Your task to perform on an android device: Go to location settings Image 0: 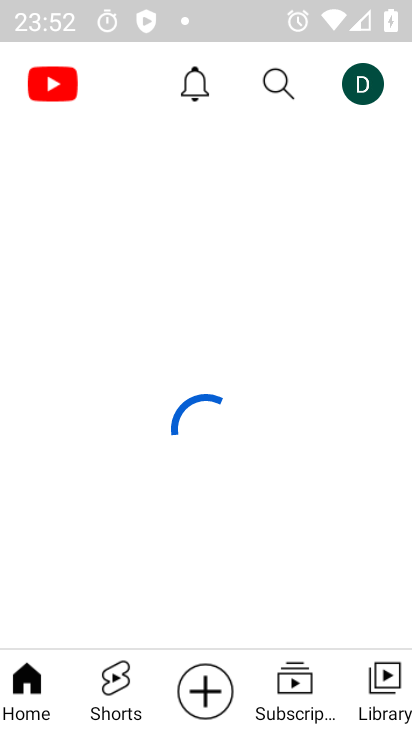
Step 0: drag from (247, 702) to (149, 27)
Your task to perform on an android device: Go to location settings Image 1: 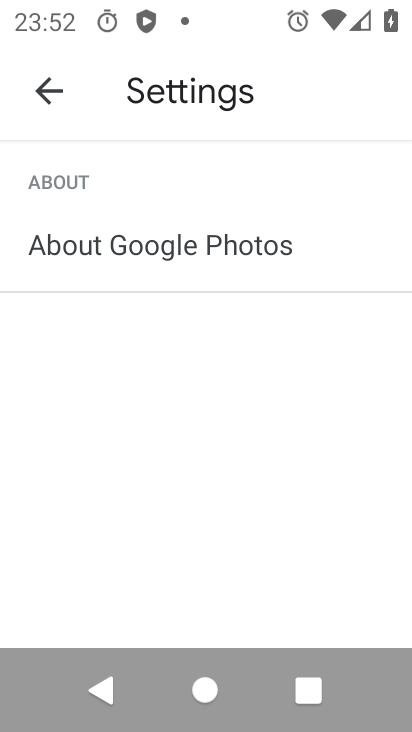
Step 1: click (46, 94)
Your task to perform on an android device: Go to location settings Image 2: 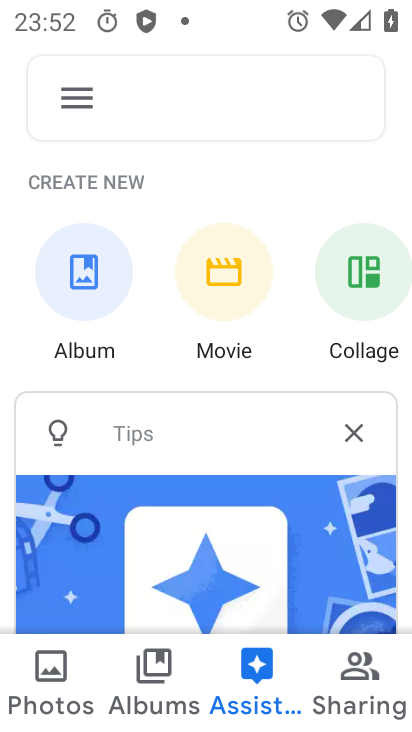
Step 2: press back button
Your task to perform on an android device: Go to location settings Image 3: 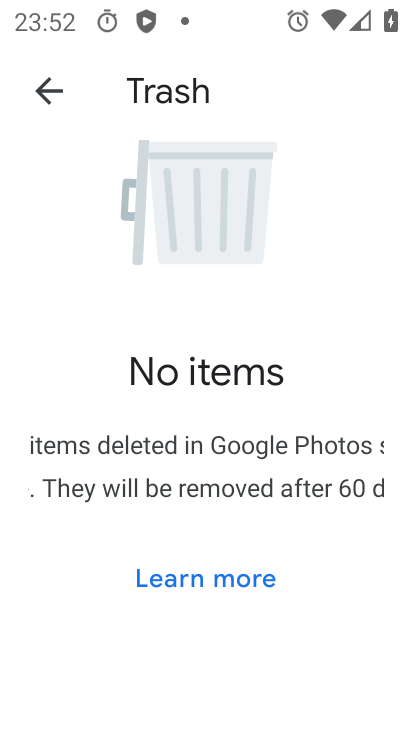
Step 3: press home button
Your task to perform on an android device: Go to location settings Image 4: 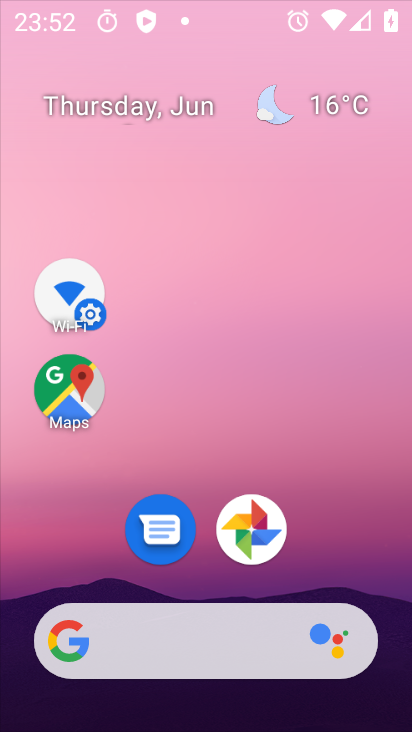
Step 4: click (59, 94)
Your task to perform on an android device: Go to location settings Image 5: 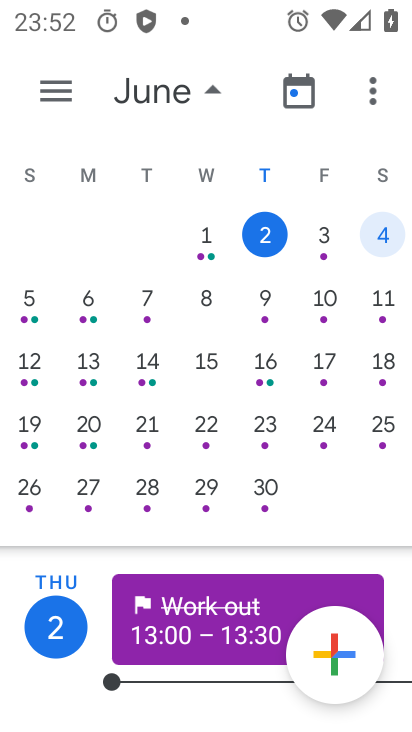
Step 5: press back button
Your task to perform on an android device: Go to location settings Image 6: 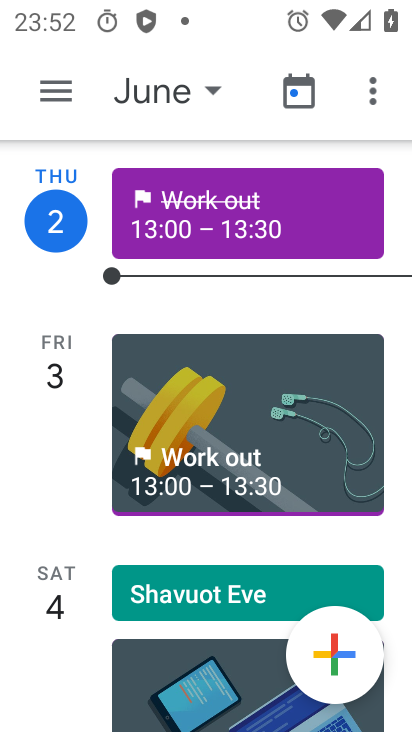
Step 6: press home button
Your task to perform on an android device: Go to location settings Image 7: 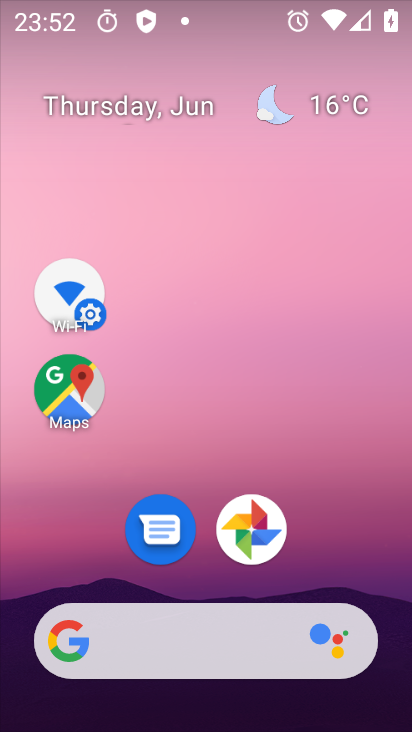
Step 7: drag from (275, 697) to (140, 105)
Your task to perform on an android device: Go to location settings Image 8: 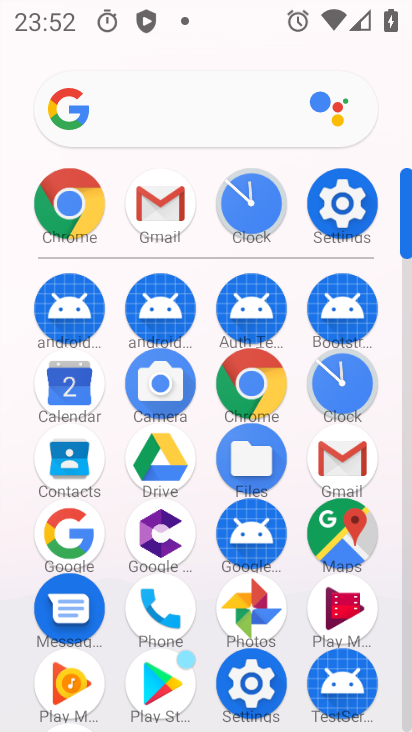
Step 8: click (340, 204)
Your task to perform on an android device: Go to location settings Image 9: 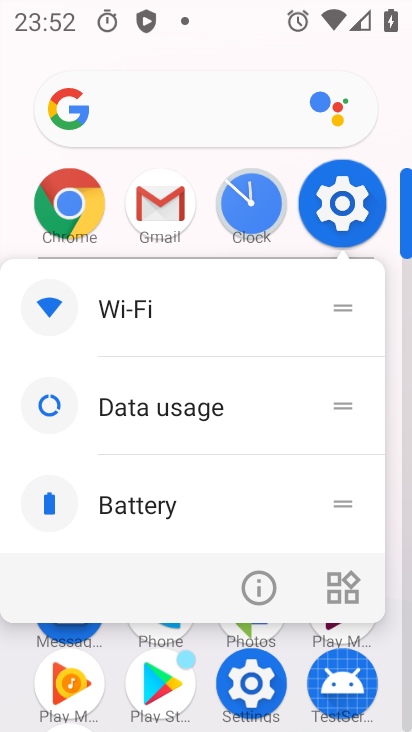
Step 9: click (339, 206)
Your task to perform on an android device: Go to location settings Image 10: 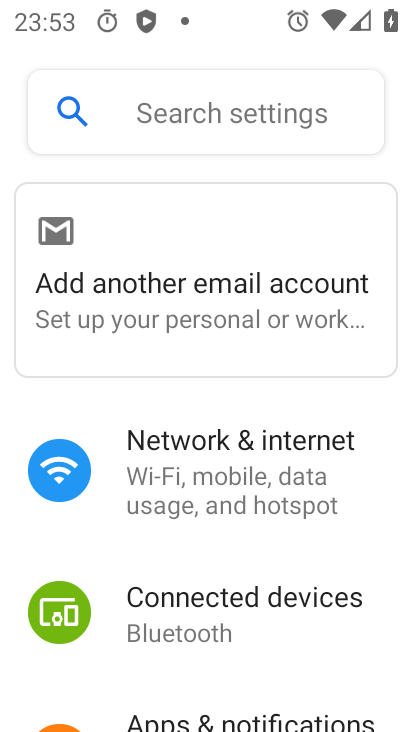
Step 10: drag from (216, 485) to (190, 137)
Your task to perform on an android device: Go to location settings Image 11: 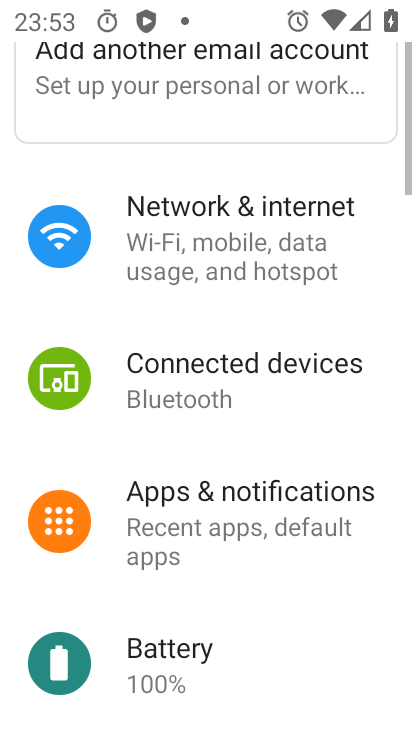
Step 11: drag from (201, 403) to (118, 94)
Your task to perform on an android device: Go to location settings Image 12: 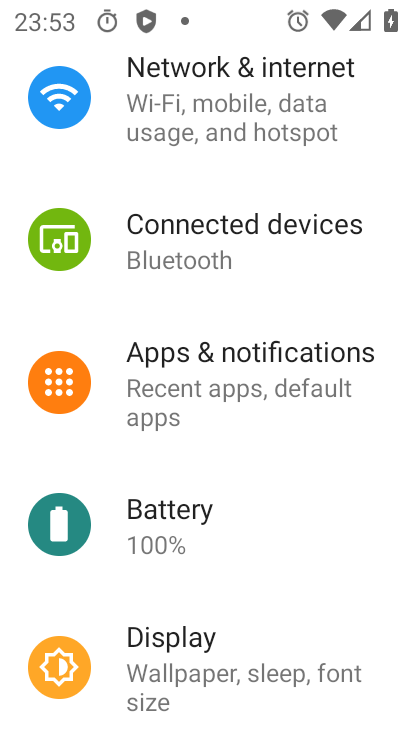
Step 12: drag from (228, 526) to (182, 14)
Your task to perform on an android device: Go to location settings Image 13: 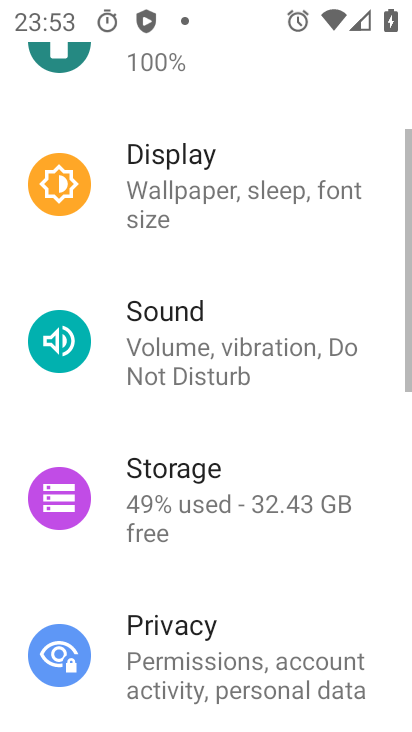
Step 13: drag from (201, 492) to (209, 116)
Your task to perform on an android device: Go to location settings Image 14: 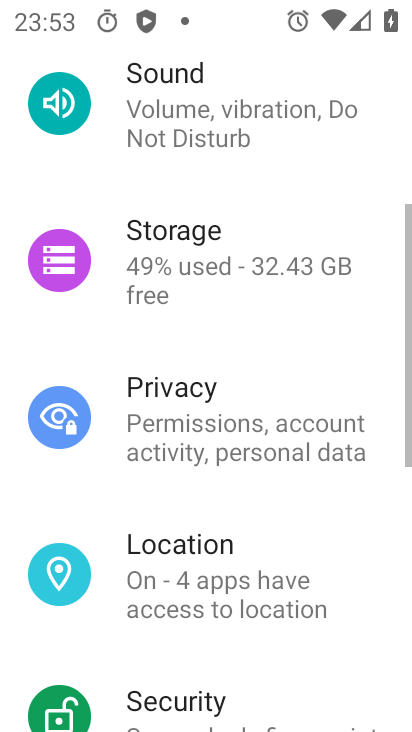
Step 14: drag from (232, 467) to (232, 111)
Your task to perform on an android device: Go to location settings Image 15: 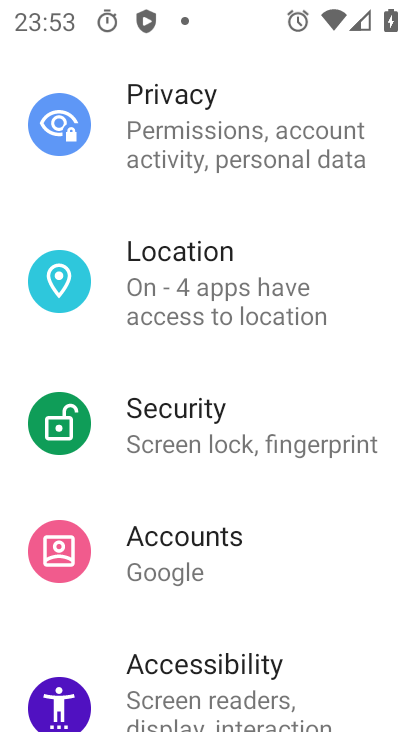
Step 15: click (181, 291)
Your task to perform on an android device: Go to location settings Image 16: 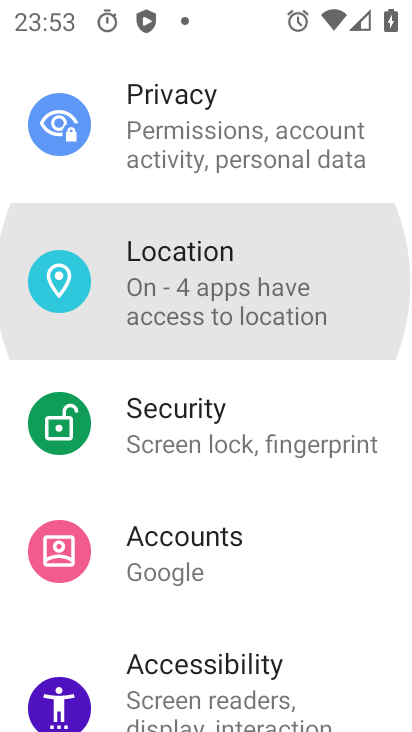
Step 16: click (182, 274)
Your task to perform on an android device: Go to location settings Image 17: 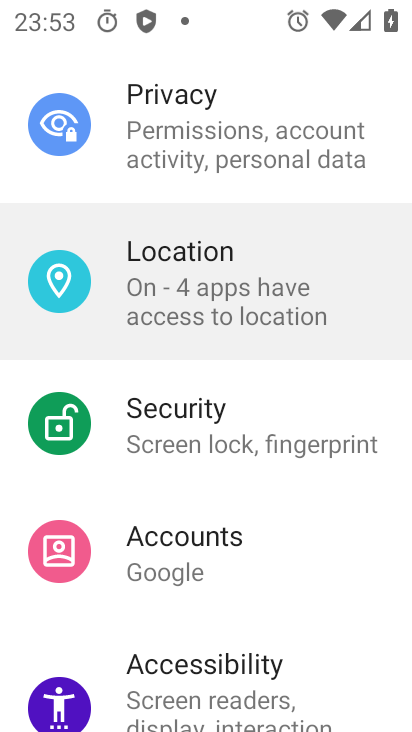
Step 17: click (183, 274)
Your task to perform on an android device: Go to location settings Image 18: 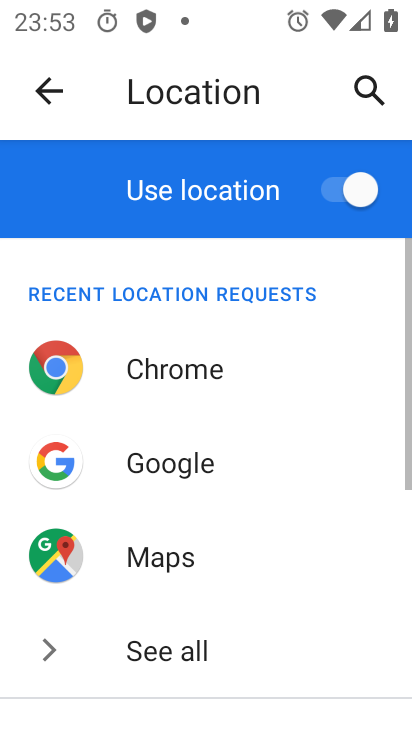
Step 18: click (137, 193)
Your task to perform on an android device: Go to location settings Image 19: 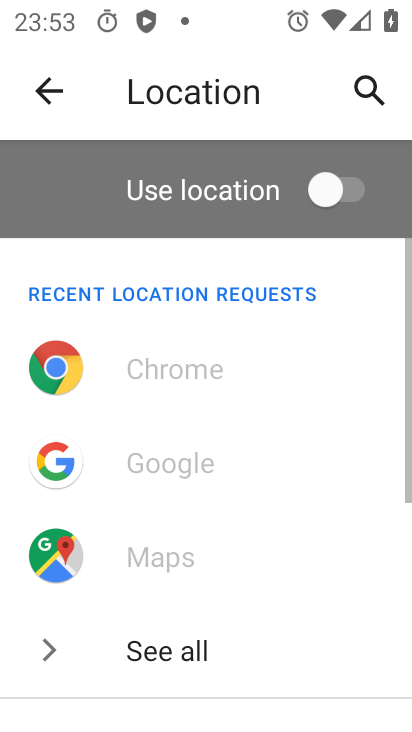
Step 19: task complete